Your task to perform on an android device: open app "Adobe Acrobat Reader: Edit PDF" Image 0: 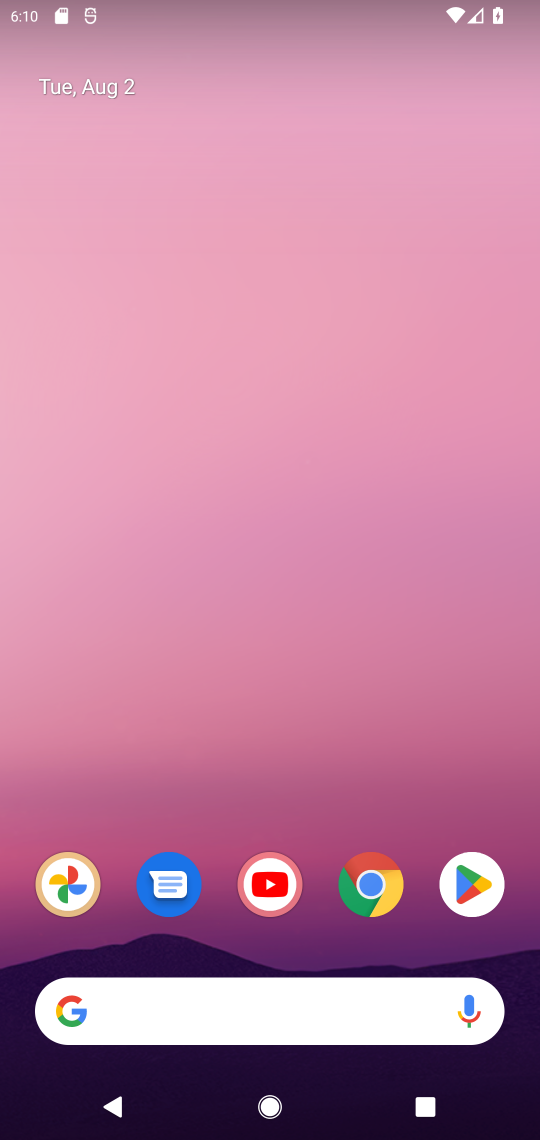
Step 0: press home button
Your task to perform on an android device: open app "Adobe Acrobat Reader: Edit PDF" Image 1: 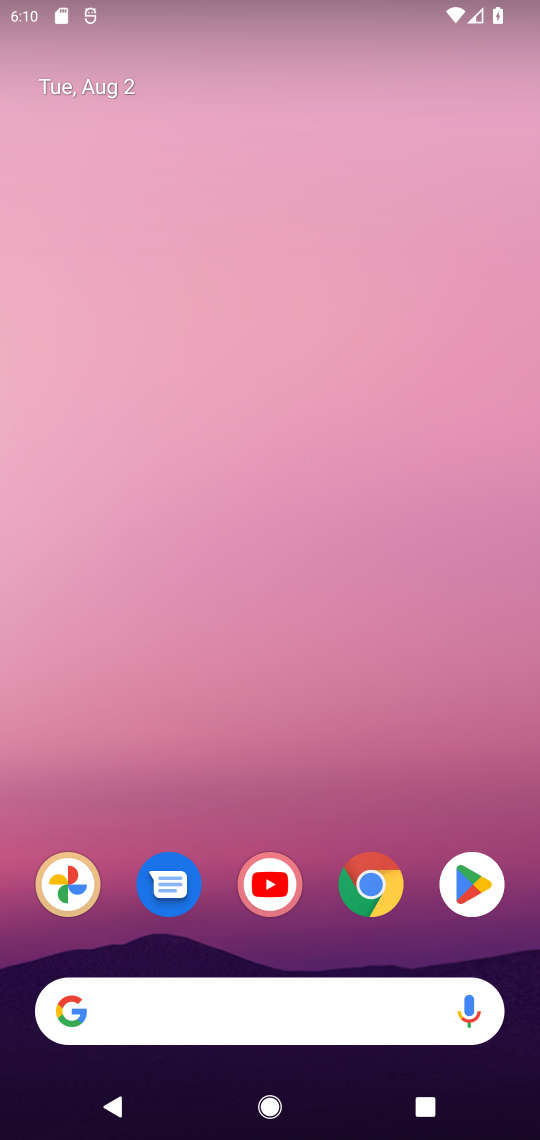
Step 1: click (483, 893)
Your task to perform on an android device: open app "Adobe Acrobat Reader: Edit PDF" Image 2: 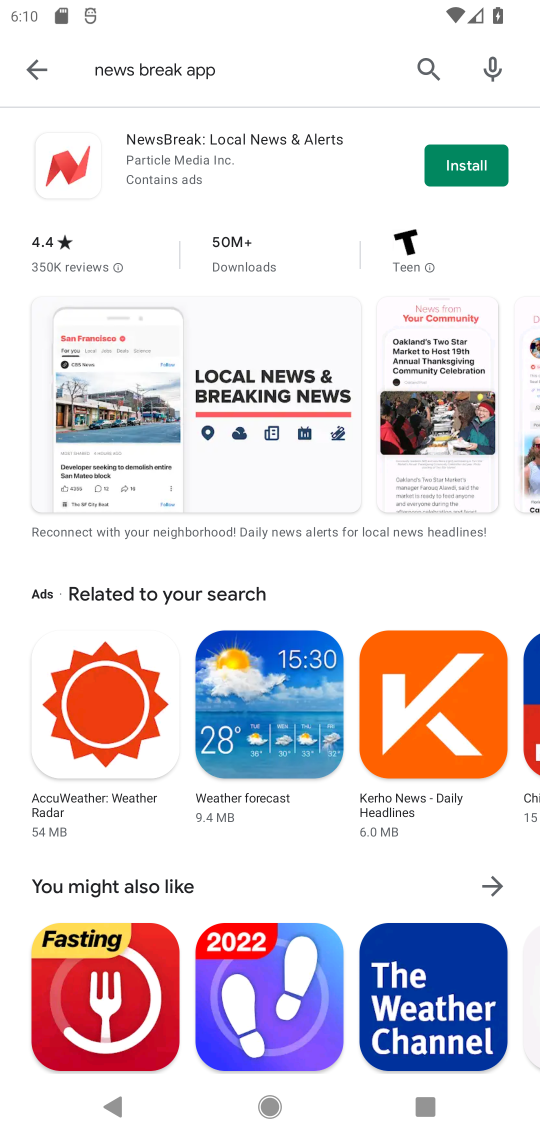
Step 2: click (435, 68)
Your task to perform on an android device: open app "Adobe Acrobat Reader: Edit PDF" Image 3: 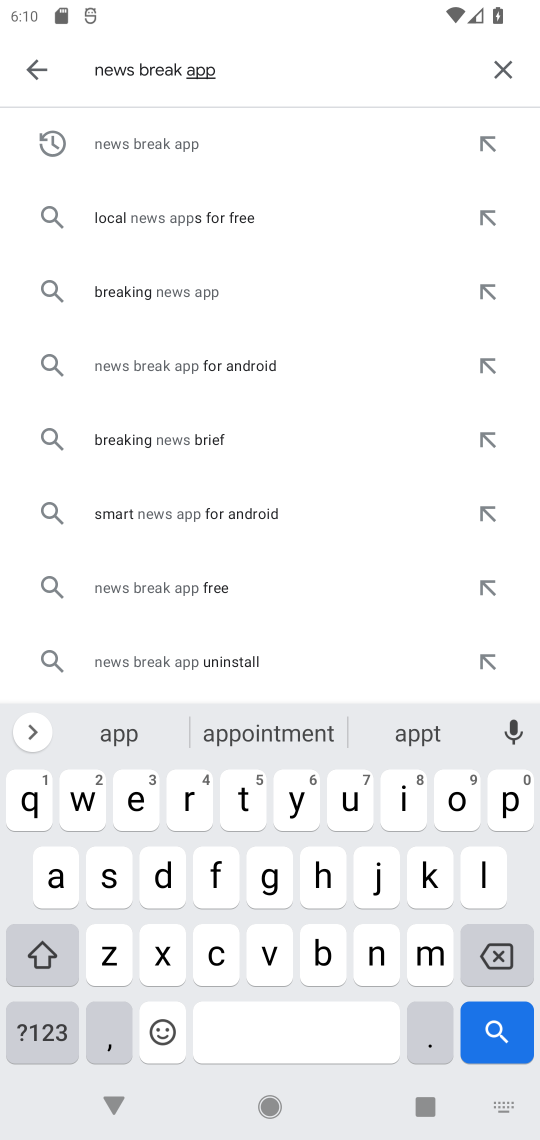
Step 3: click (512, 78)
Your task to perform on an android device: open app "Adobe Acrobat Reader: Edit PDF" Image 4: 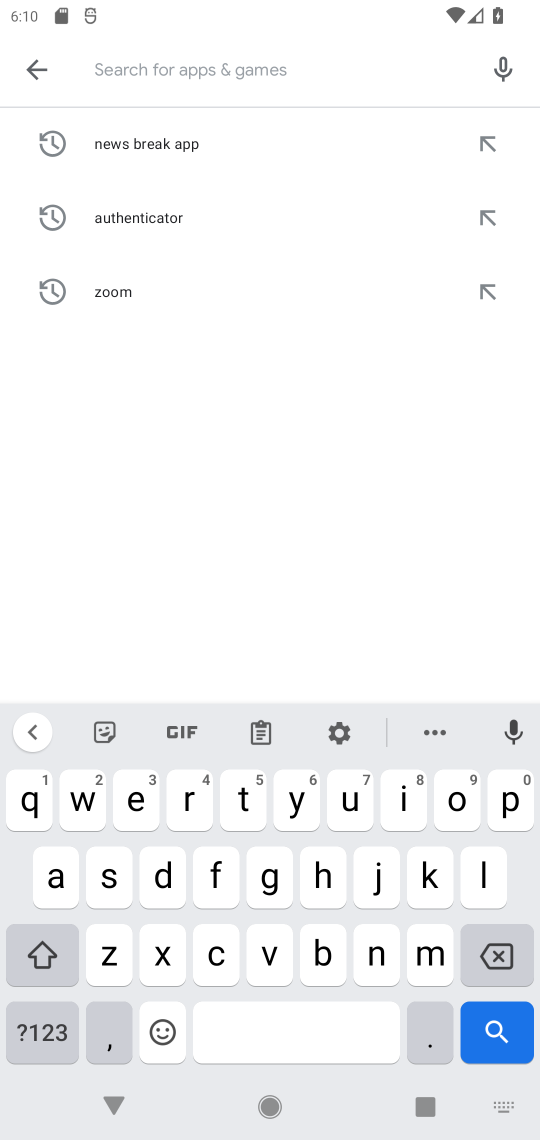
Step 4: click (51, 868)
Your task to perform on an android device: open app "Adobe Acrobat Reader: Edit PDF" Image 5: 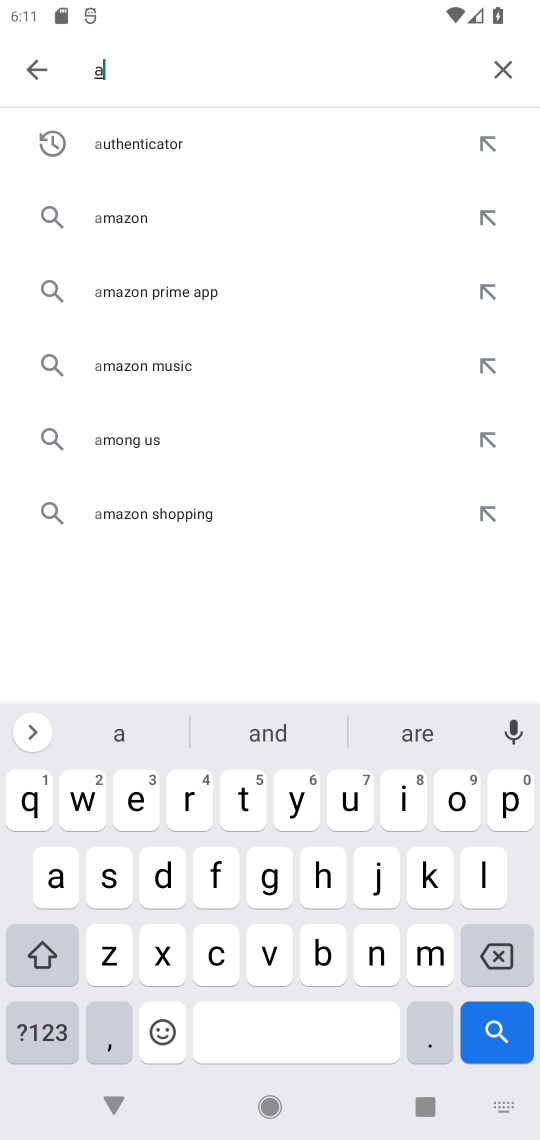
Step 5: click (159, 876)
Your task to perform on an android device: open app "Adobe Acrobat Reader: Edit PDF" Image 6: 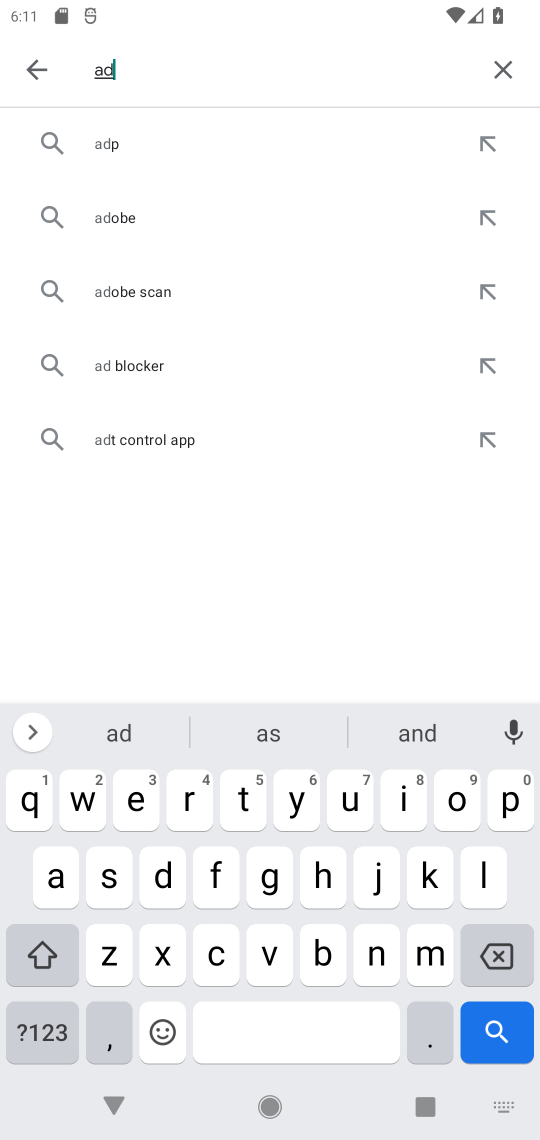
Step 6: click (152, 217)
Your task to perform on an android device: open app "Adobe Acrobat Reader: Edit PDF" Image 7: 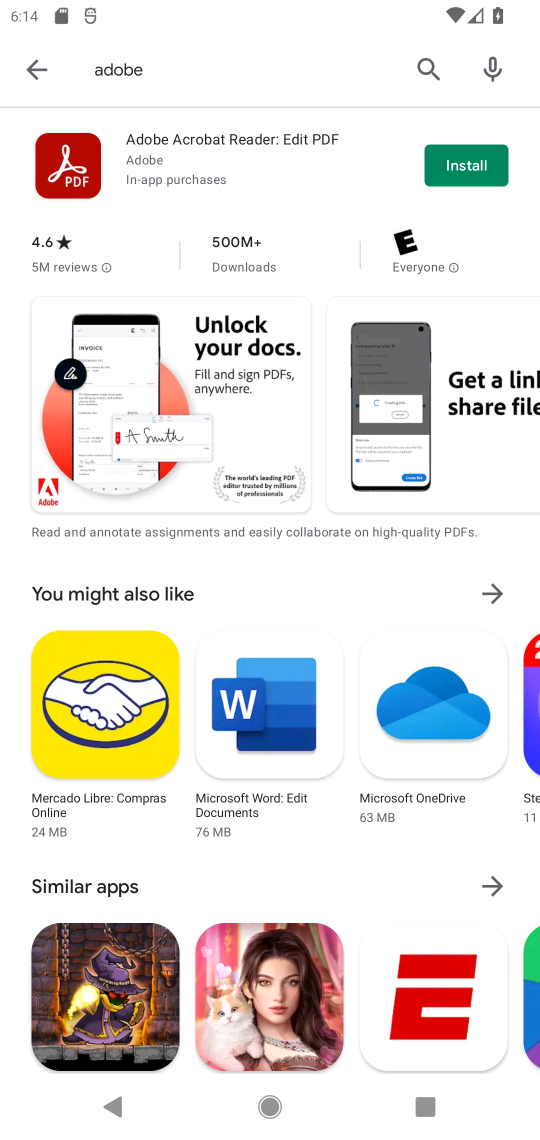
Step 7: task complete